Your task to perform on an android device: open the mobile data screen to see how much data has been used Image 0: 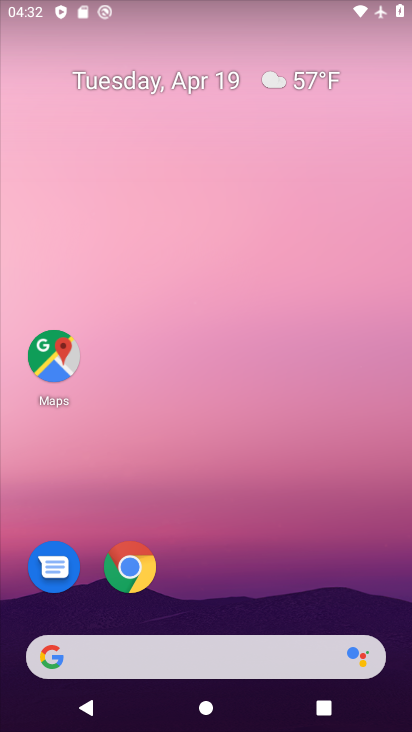
Step 0: drag from (359, 597) to (363, 127)
Your task to perform on an android device: open the mobile data screen to see how much data has been used Image 1: 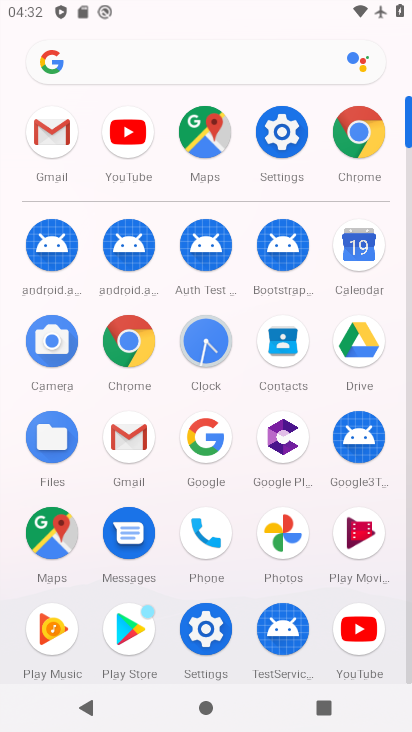
Step 1: click (289, 150)
Your task to perform on an android device: open the mobile data screen to see how much data has been used Image 2: 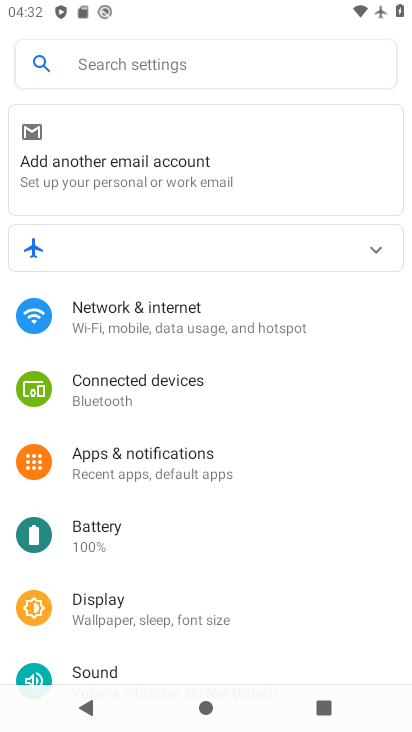
Step 2: drag from (358, 572) to (354, 416)
Your task to perform on an android device: open the mobile data screen to see how much data has been used Image 3: 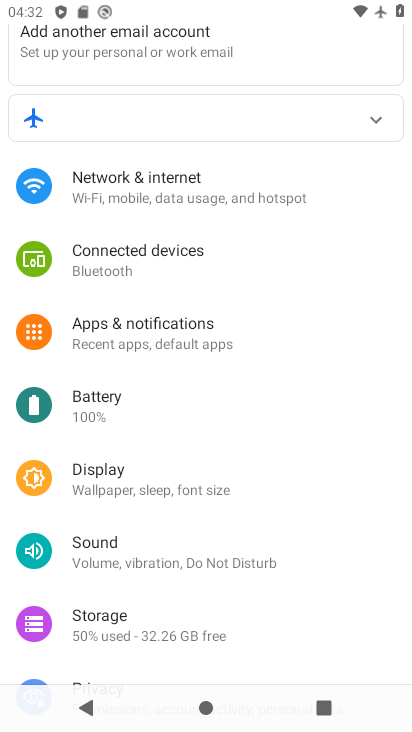
Step 3: drag from (339, 593) to (344, 448)
Your task to perform on an android device: open the mobile data screen to see how much data has been used Image 4: 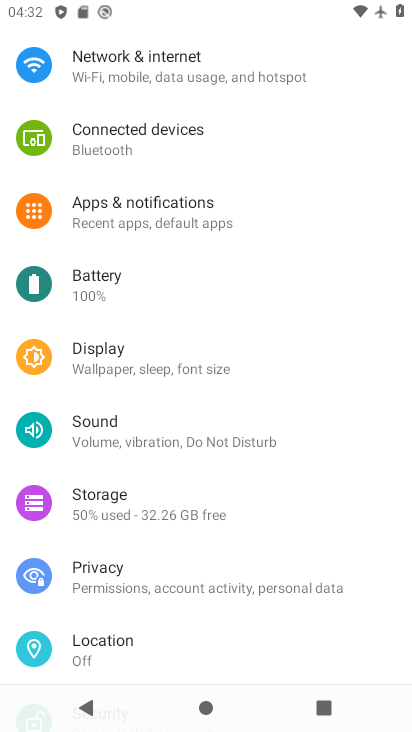
Step 4: drag from (356, 622) to (368, 504)
Your task to perform on an android device: open the mobile data screen to see how much data has been used Image 5: 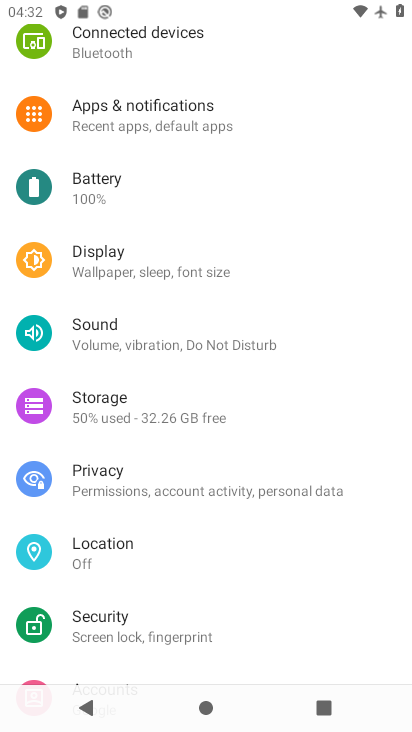
Step 5: drag from (364, 613) to (346, 444)
Your task to perform on an android device: open the mobile data screen to see how much data has been used Image 6: 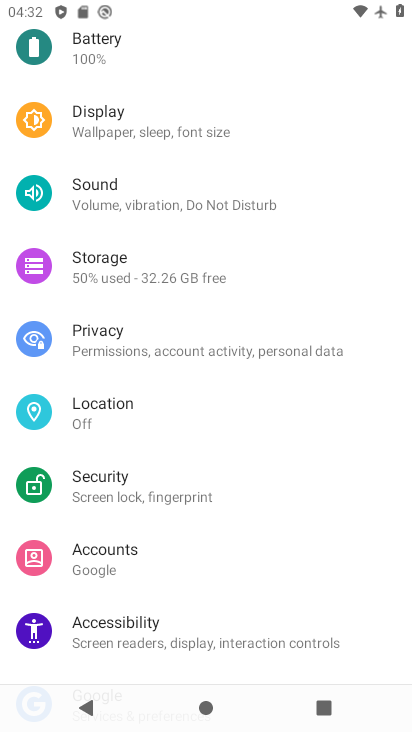
Step 6: drag from (361, 608) to (367, 437)
Your task to perform on an android device: open the mobile data screen to see how much data has been used Image 7: 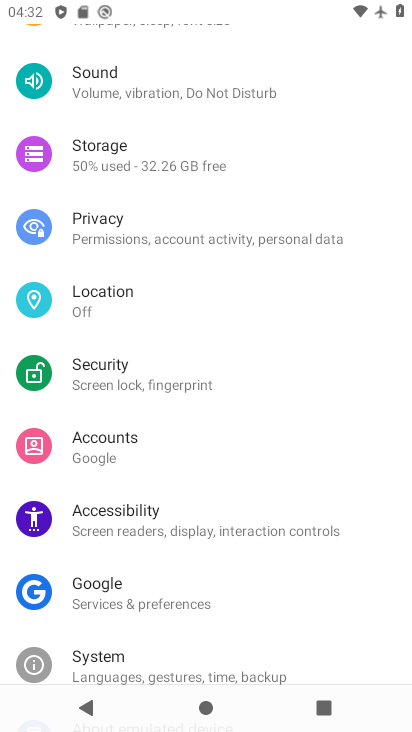
Step 7: drag from (366, 618) to (356, 460)
Your task to perform on an android device: open the mobile data screen to see how much data has been used Image 8: 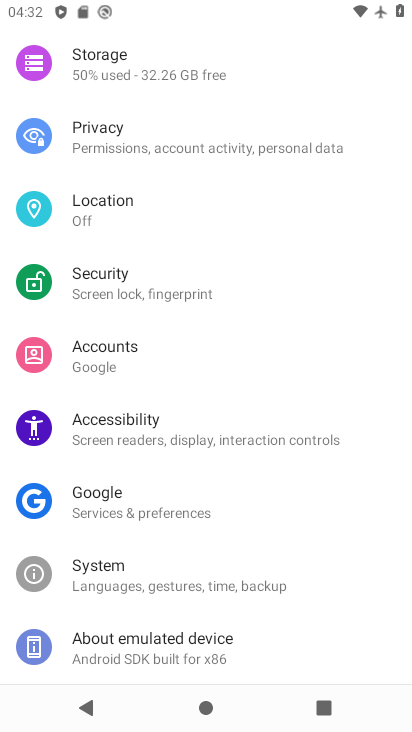
Step 8: drag from (369, 370) to (358, 519)
Your task to perform on an android device: open the mobile data screen to see how much data has been used Image 9: 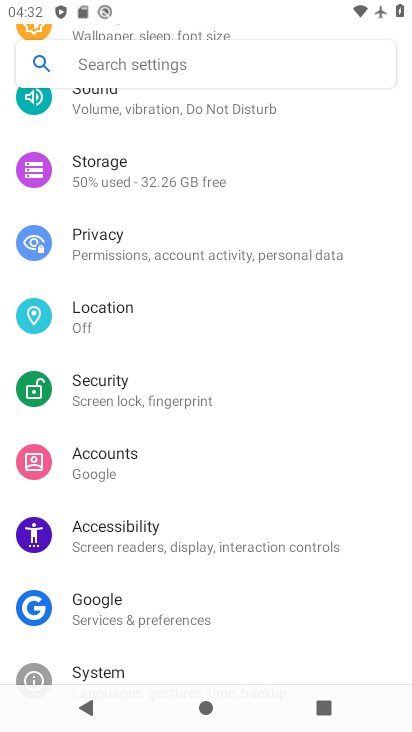
Step 9: drag from (371, 354) to (372, 502)
Your task to perform on an android device: open the mobile data screen to see how much data has been used Image 10: 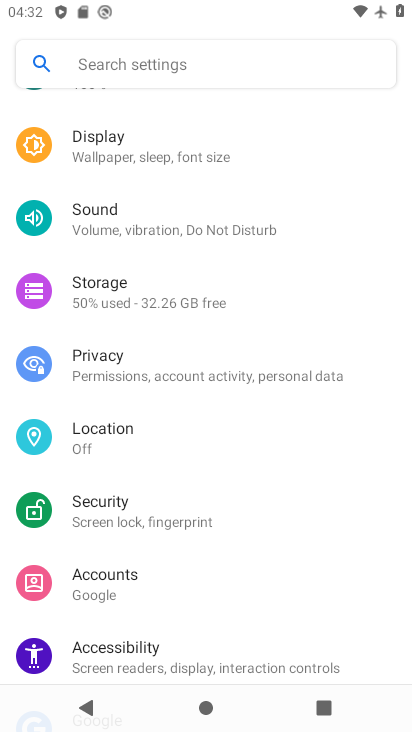
Step 10: drag from (370, 335) to (361, 487)
Your task to perform on an android device: open the mobile data screen to see how much data has been used Image 11: 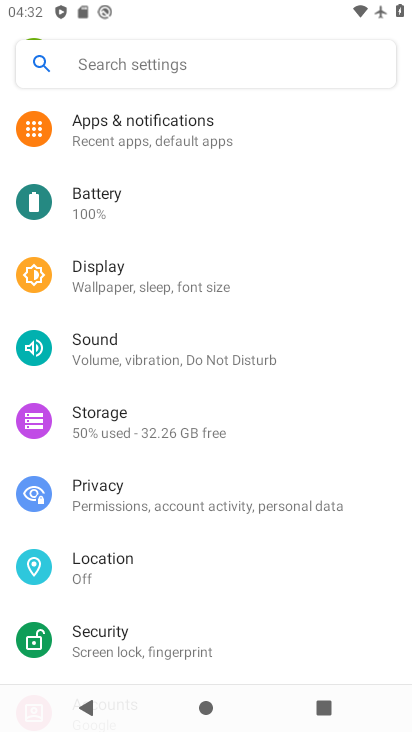
Step 11: drag from (373, 357) to (361, 500)
Your task to perform on an android device: open the mobile data screen to see how much data has been used Image 12: 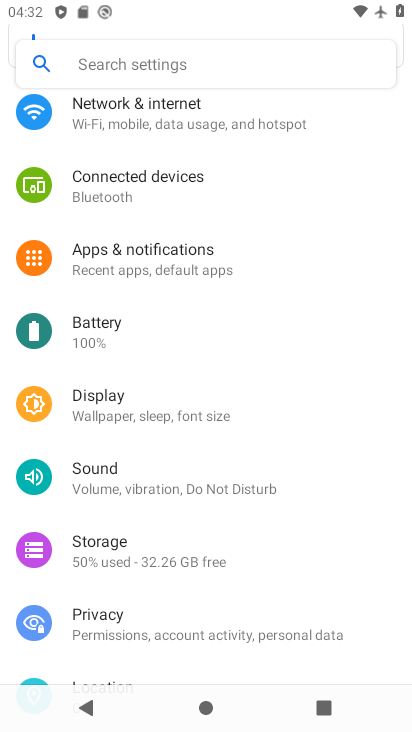
Step 12: drag from (361, 297) to (346, 453)
Your task to perform on an android device: open the mobile data screen to see how much data has been used Image 13: 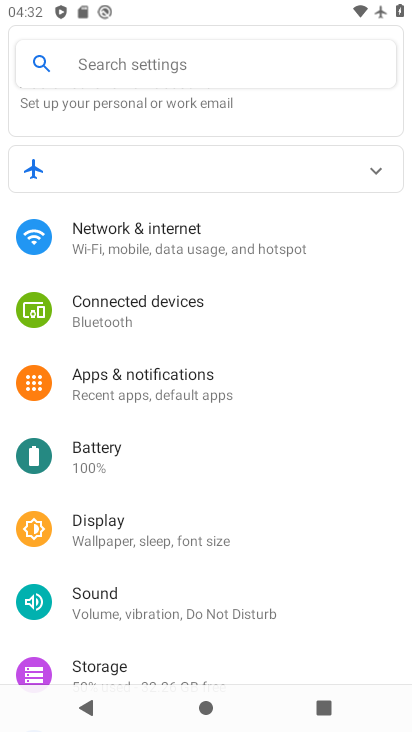
Step 13: drag from (346, 272) to (347, 399)
Your task to perform on an android device: open the mobile data screen to see how much data has been used Image 14: 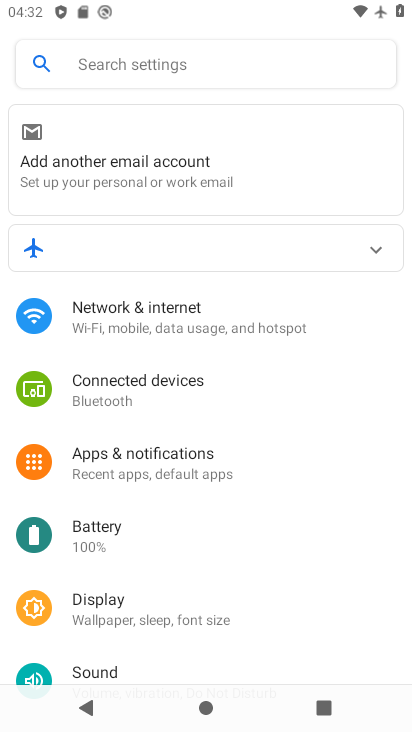
Step 14: click (290, 316)
Your task to perform on an android device: open the mobile data screen to see how much data has been used Image 15: 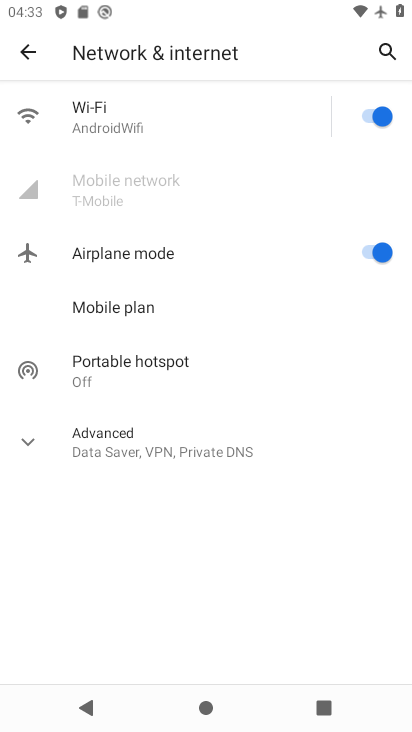
Step 15: task complete